Your task to perform on an android device: open app "ColorNote Notepad Notes" (install if not already installed) Image 0: 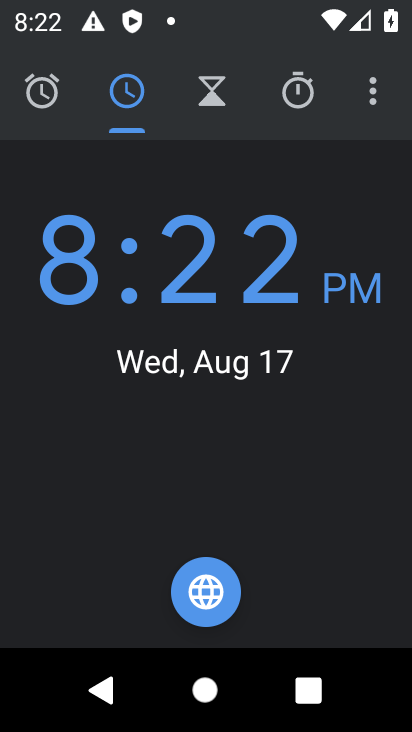
Step 0: press home button
Your task to perform on an android device: open app "ColorNote Notepad Notes" (install if not already installed) Image 1: 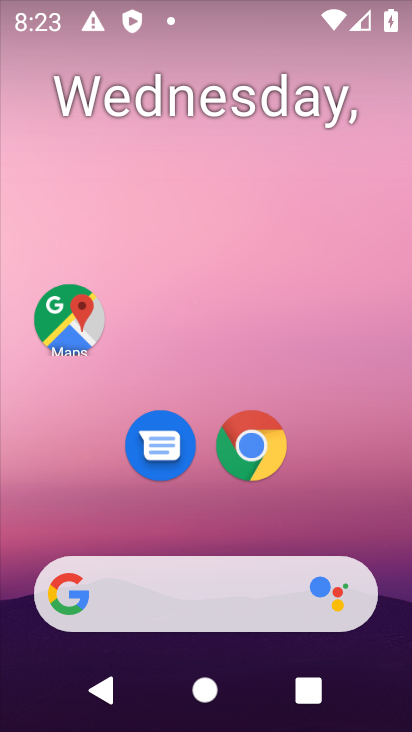
Step 1: drag from (149, 597) to (250, 86)
Your task to perform on an android device: open app "ColorNote Notepad Notes" (install if not already installed) Image 2: 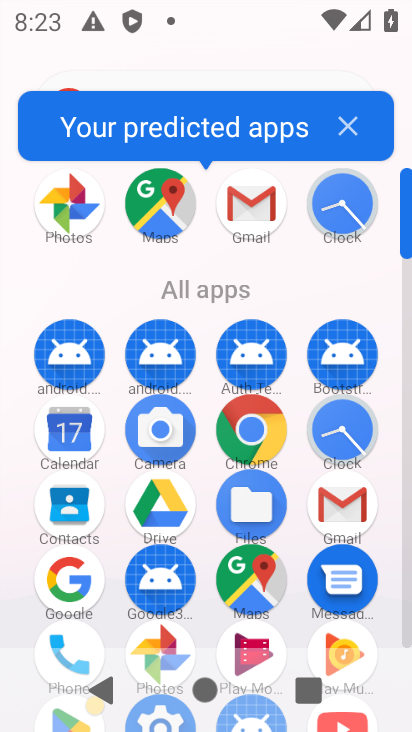
Step 2: drag from (303, 297) to (350, 0)
Your task to perform on an android device: open app "ColorNote Notepad Notes" (install if not already installed) Image 3: 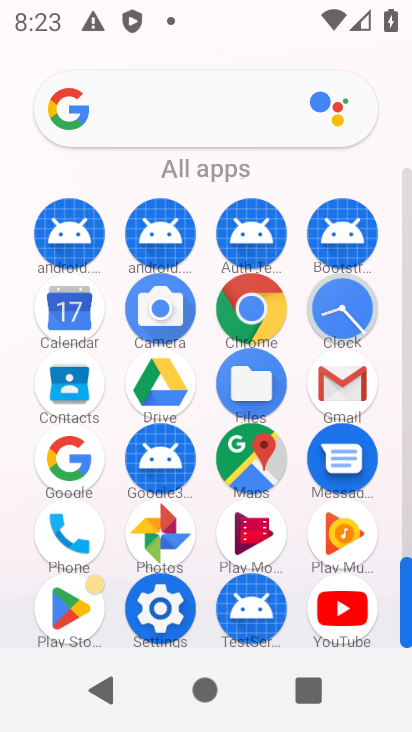
Step 3: click (73, 612)
Your task to perform on an android device: open app "ColorNote Notepad Notes" (install if not already installed) Image 4: 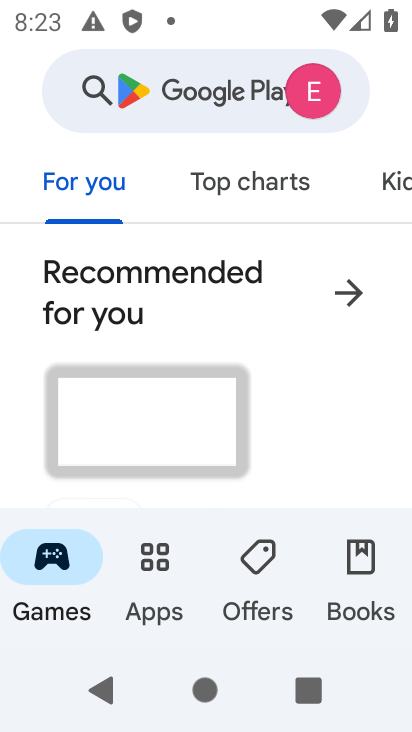
Step 4: click (187, 101)
Your task to perform on an android device: open app "ColorNote Notepad Notes" (install if not already installed) Image 5: 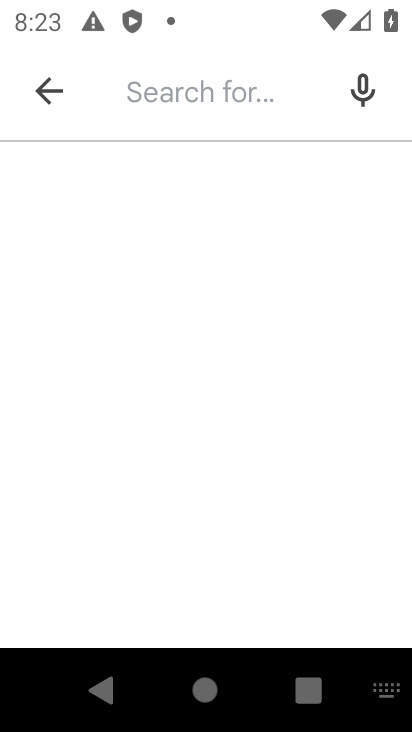
Step 5: type "ColorNote Notepad Notes"
Your task to perform on an android device: open app "ColorNote Notepad Notes" (install if not already installed) Image 6: 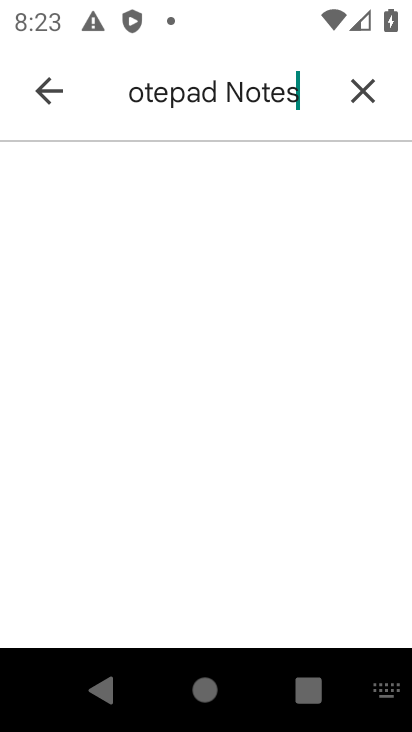
Step 6: type ""
Your task to perform on an android device: open app "ColorNote Notepad Notes" (install if not already installed) Image 7: 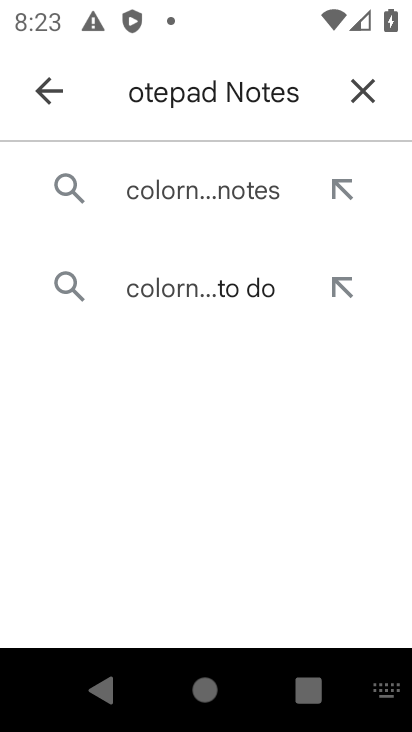
Step 7: click (219, 203)
Your task to perform on an android device: open app "ColorNote Notepad Notes" (install if not already installed) Image 8: 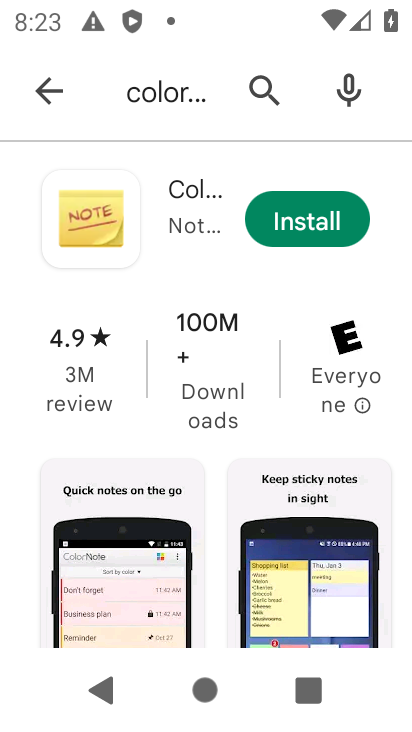
Step 8: click (315, 224)
Your task to perform on an android device: open app "ColorNote Notepad Notes" (install if not already installed) Image 9: 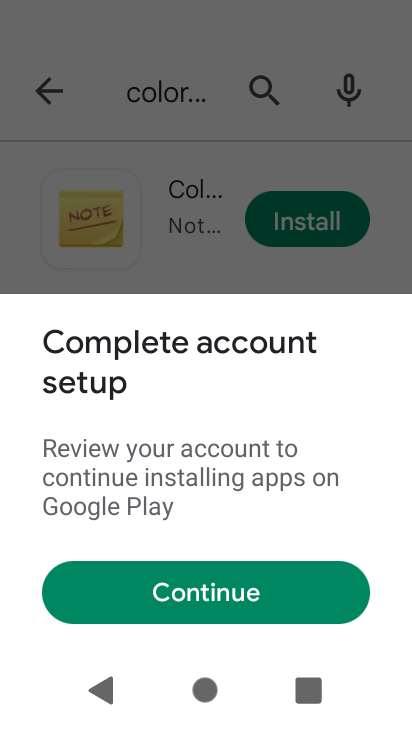
Step 9: click (201, 600)
Your task to perform on an android device: open app "ColorNote Notepad Notes" (install if not already installed) Image 10: 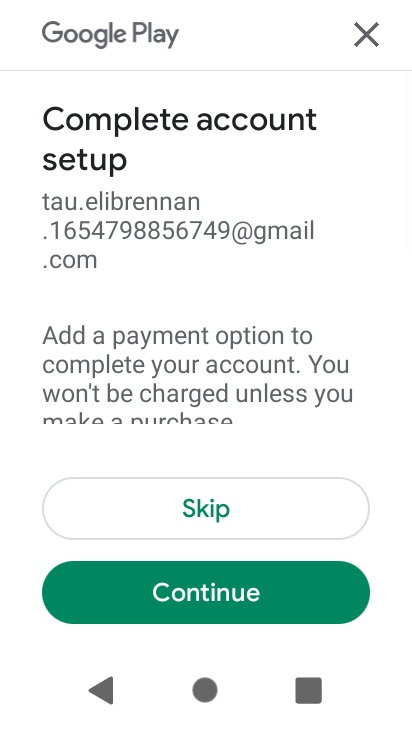
Step 10: click (190, 500)
Your task to perform on an android device: open app "ColorNote Notepad Notes" (install if not already installed) Image 11: 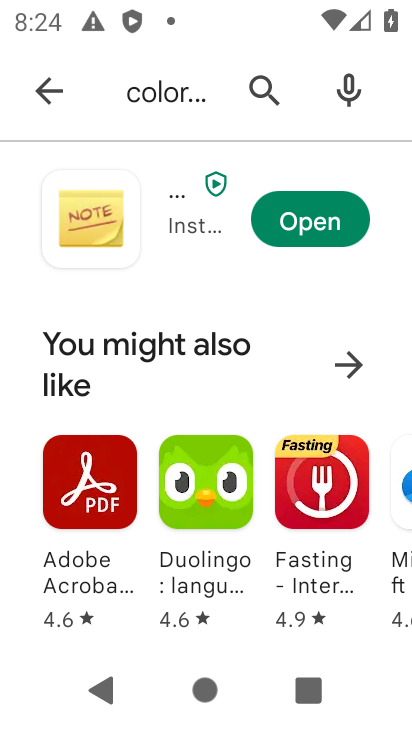
Step 11: click (311, 217)
Your task to perform on an android device: open app "ColorNote Notepad Notes" (install if not already installed) Image 12: 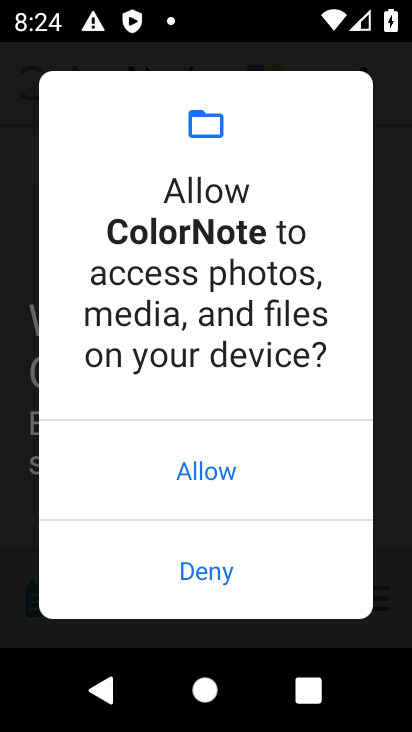
Step 12: click (205, 460)
Your task to perform on an android device: open app "ColorNote Notepad Notes" (install if not already installed) Image 13: 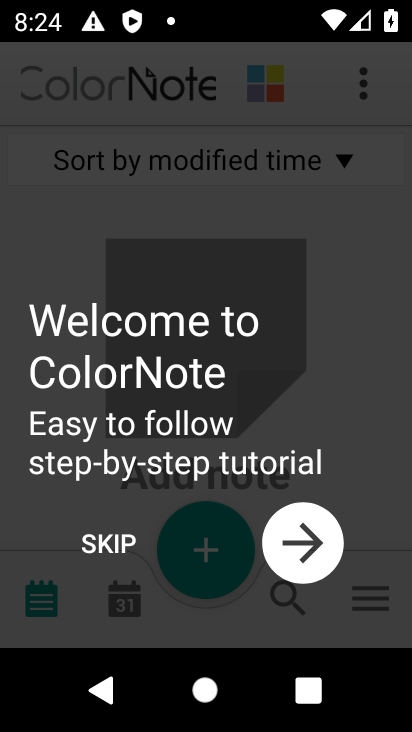
Step 13: click (135, 554)
Your task to perform on an android device: open app "ColorNote Notepad Notes" (install if not already installed) Image 14: 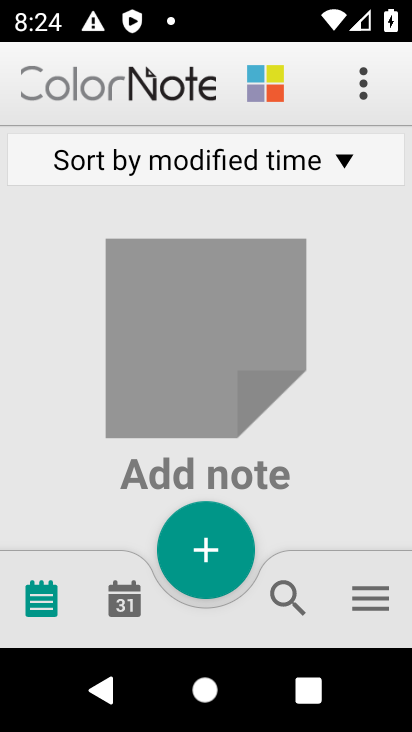
Step 14: task complete